Your task to perform on an android device: Play the last video I watched on Youtube Image 0: 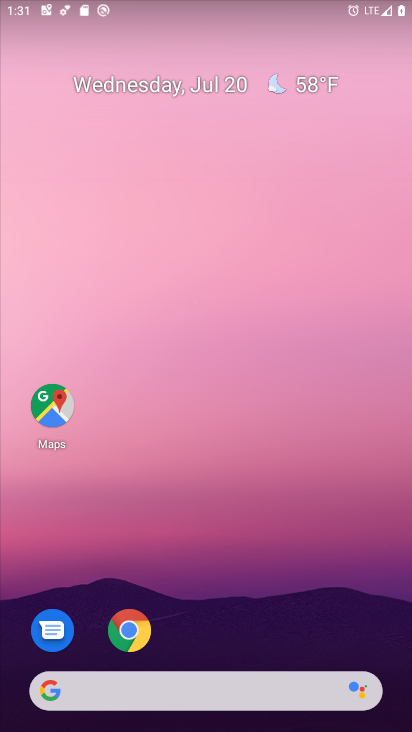
Step 0: drag from (215, 656) to (211, 188)
Your task to perform on an android device: Play the last video I watched on Youtube Image 1: 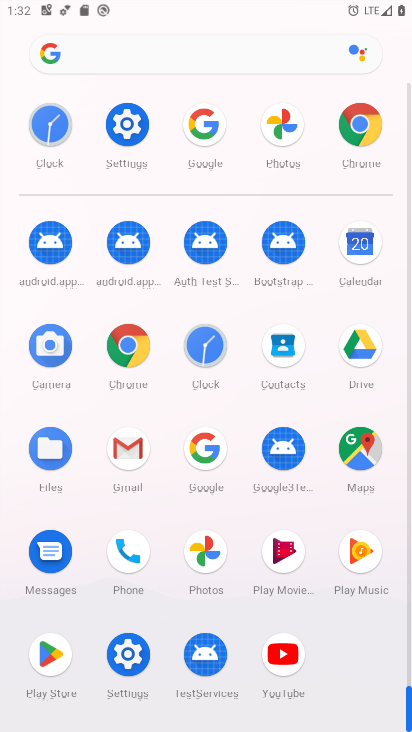
Step 1: click (284, 658)
Your task to perform on an android device: Play the last video I watched on Youtube Image 2: 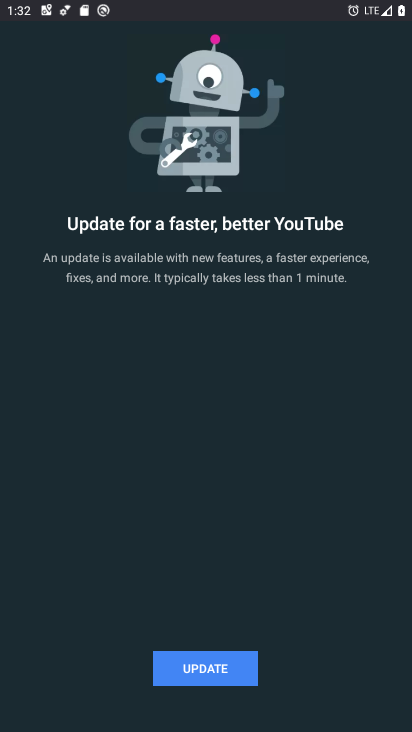
Step 2: task complete